Your task to perform on an android device: install app "Adobe Express: Graphic Design" Image 0: 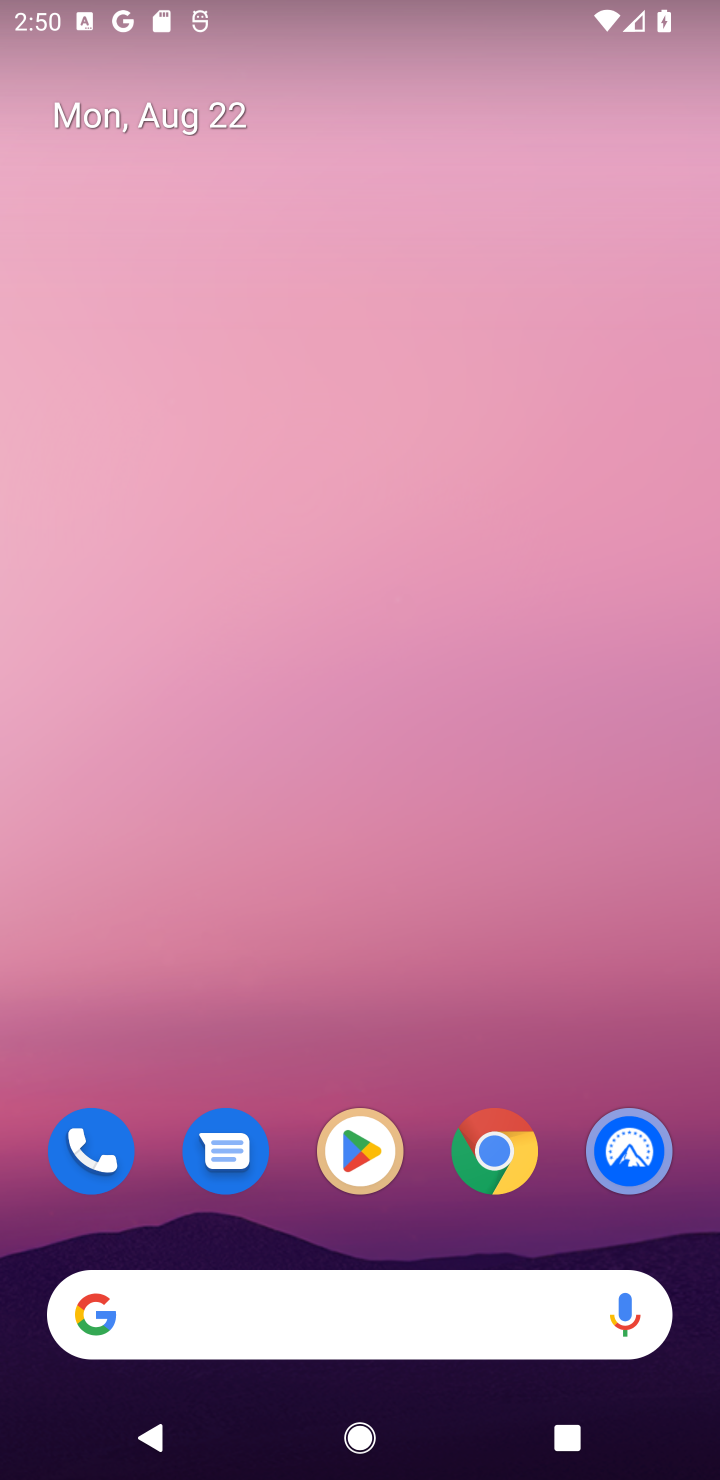
Step 0: click (372, 1134)
Your task to perform on an android device: install app "Adobe Express: Graphic Design" Image 1: 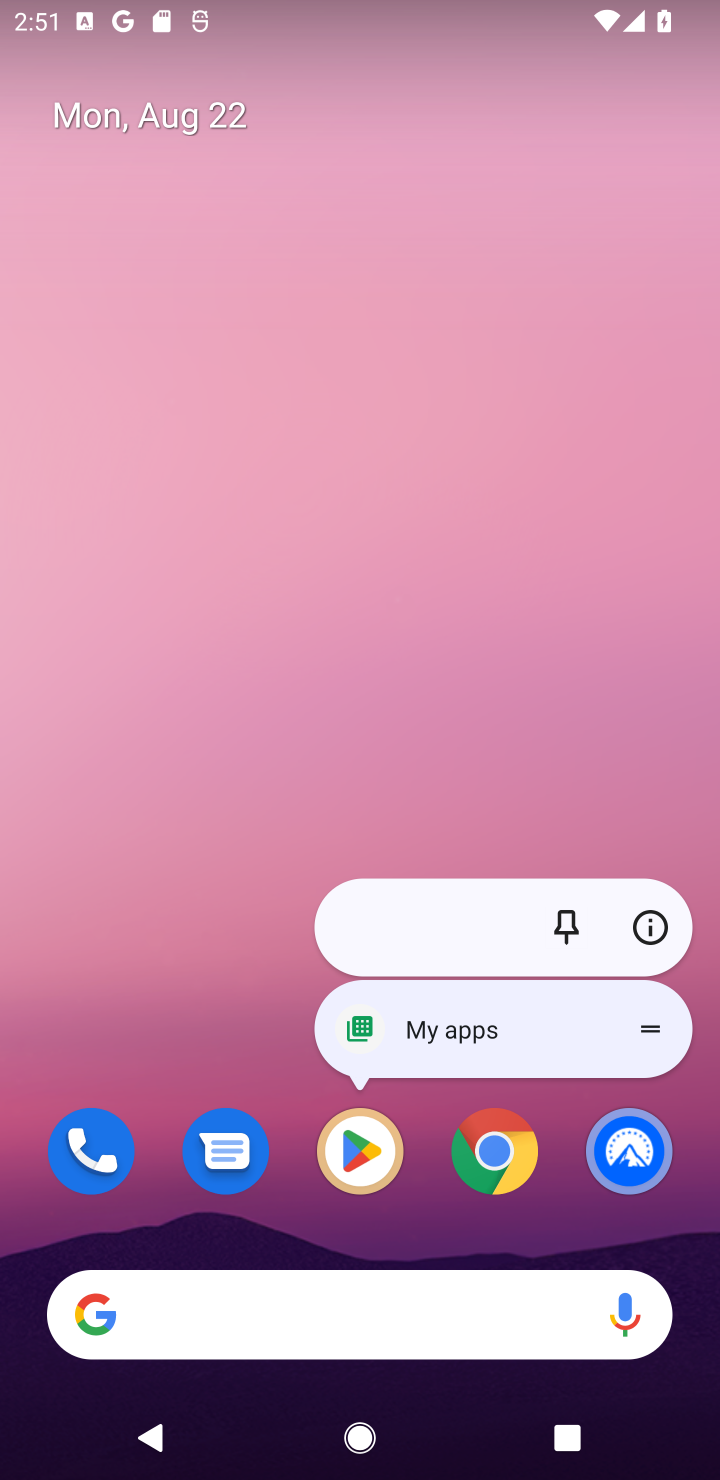
Step 1: click (354, 1141)
Your task to perform on an android device: install app "Adobe Express: Graphic Design" Image 2: 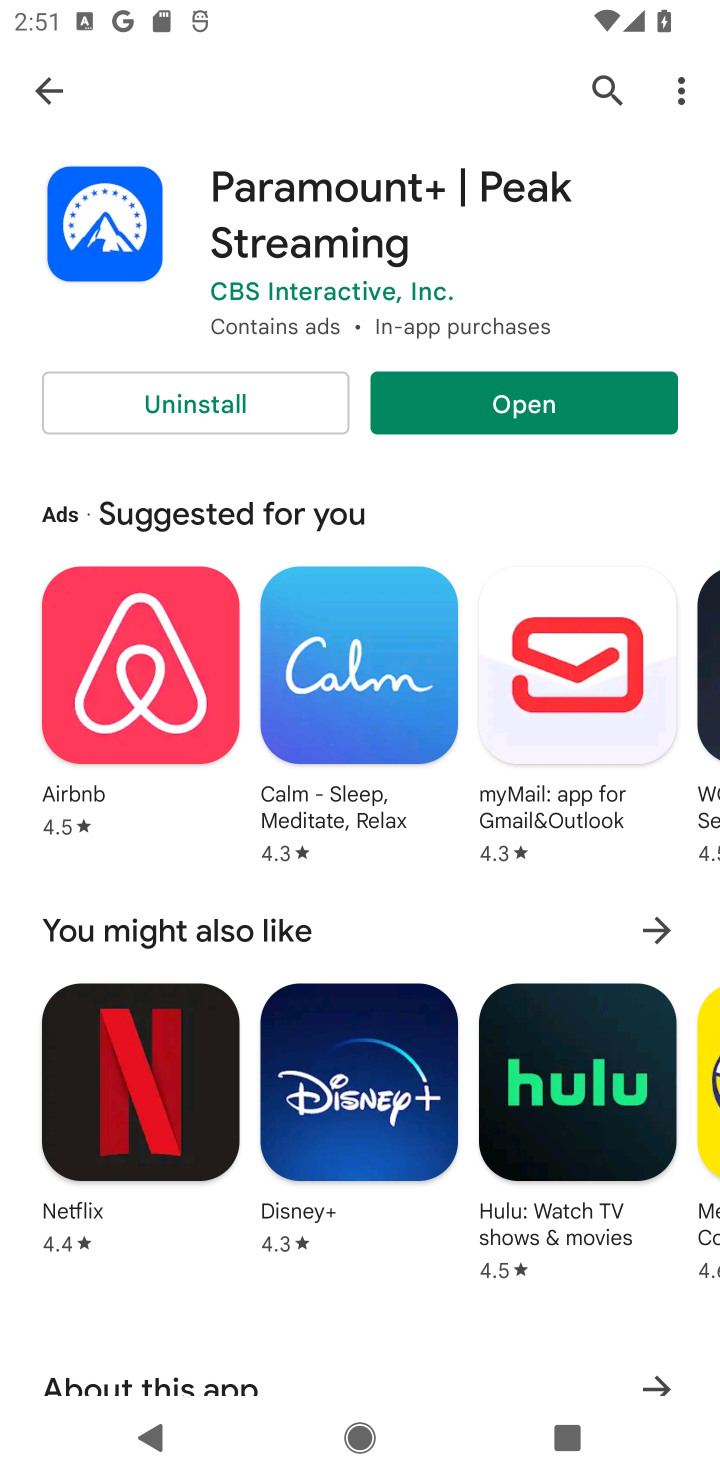
Step 2: click (599, 88)
Your task to perform on an android device: install app "Adobe Express: Graphic Design" Image 3: 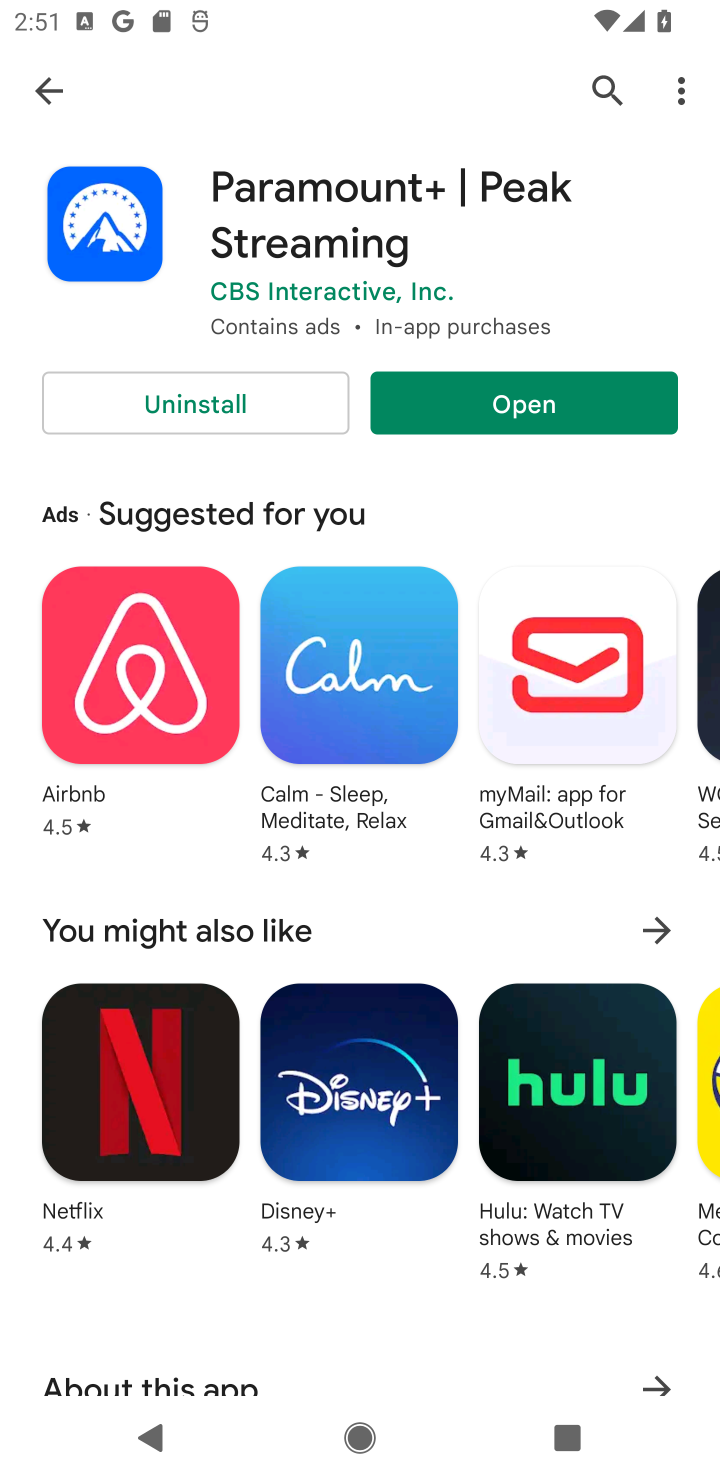
Step 3: click (602, 85)
Your task to perform on an android device: install app "Adobe Express: Graphic Design" Image 4: 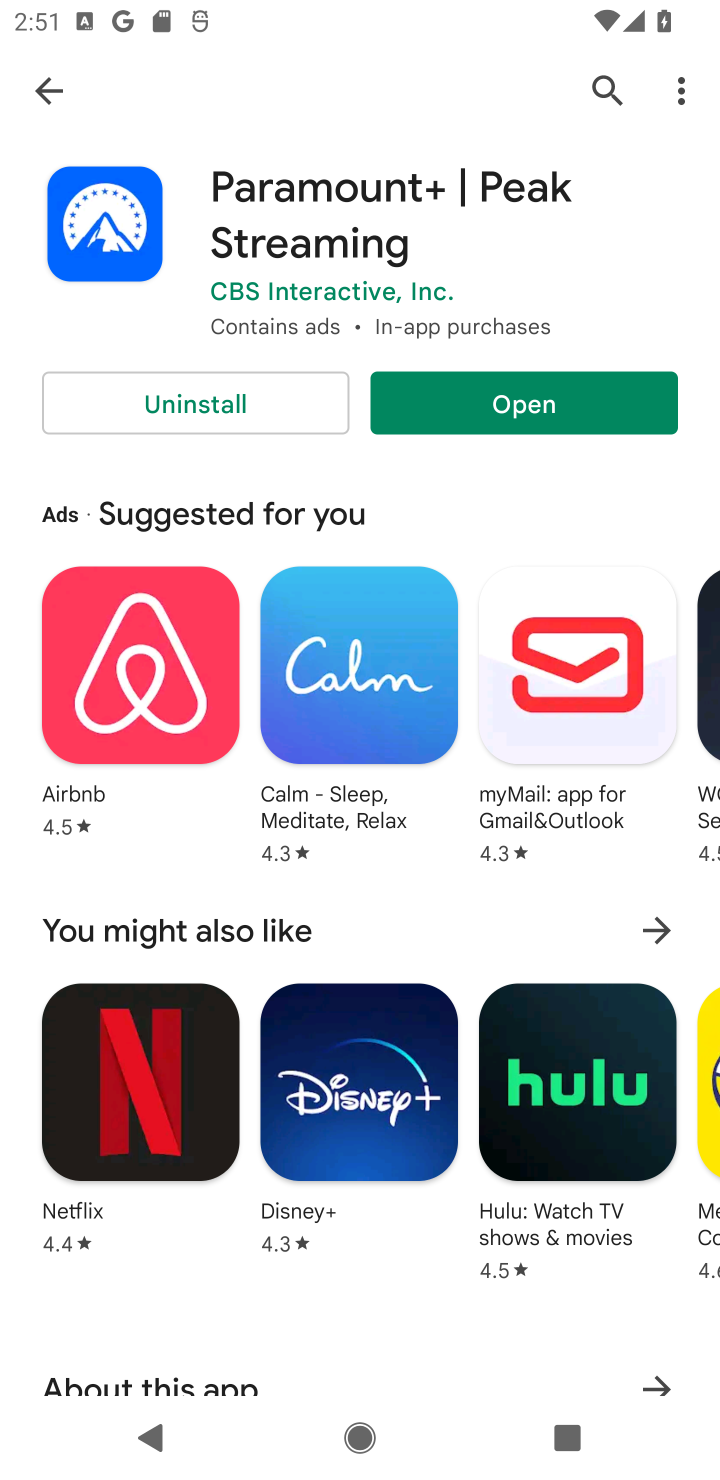
Step 4: click (602, 88)
Your task to perform on an android device: install app "Adobe Express: Graphic Design" Image 5: 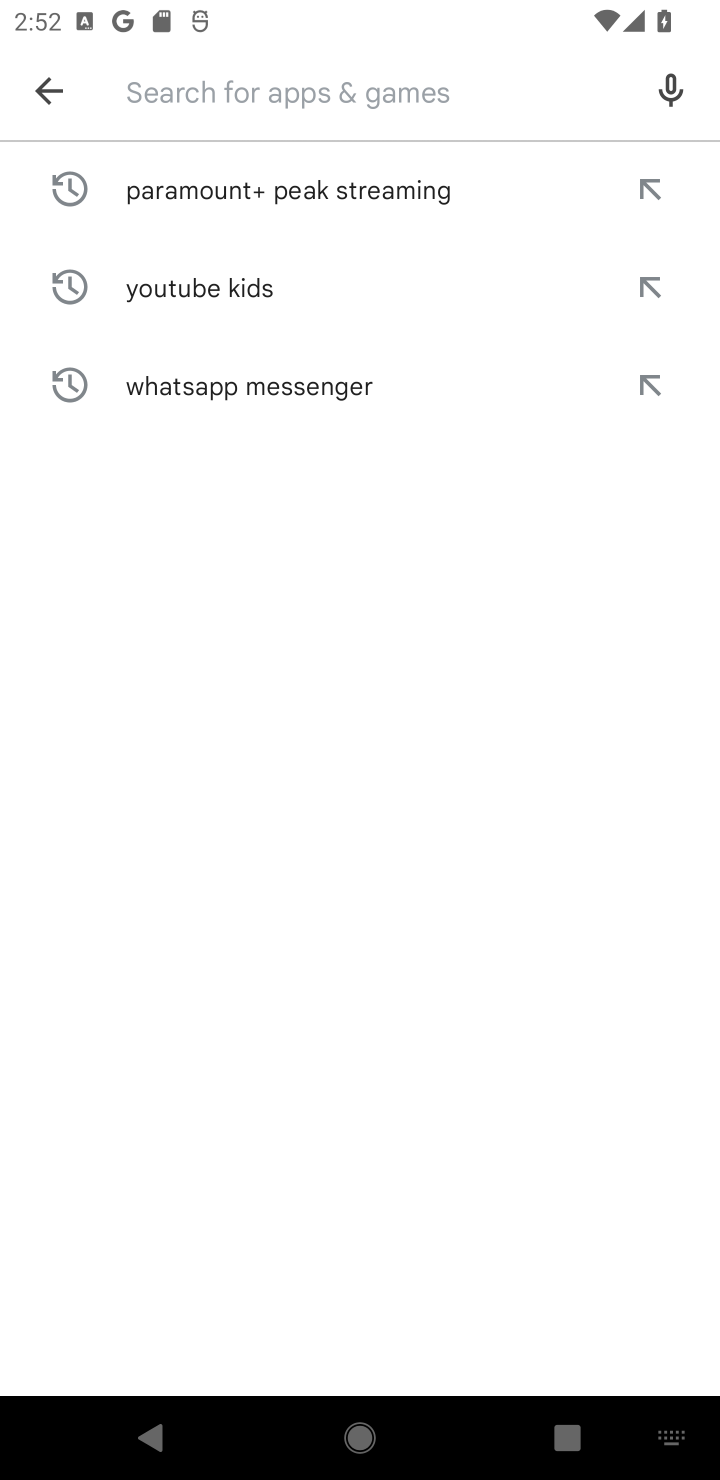
Step 5: type "Adobe Express: Graphic Design"
Your task to perform on an android device: install app "Adobe Express: Graphic Design" Image 6: 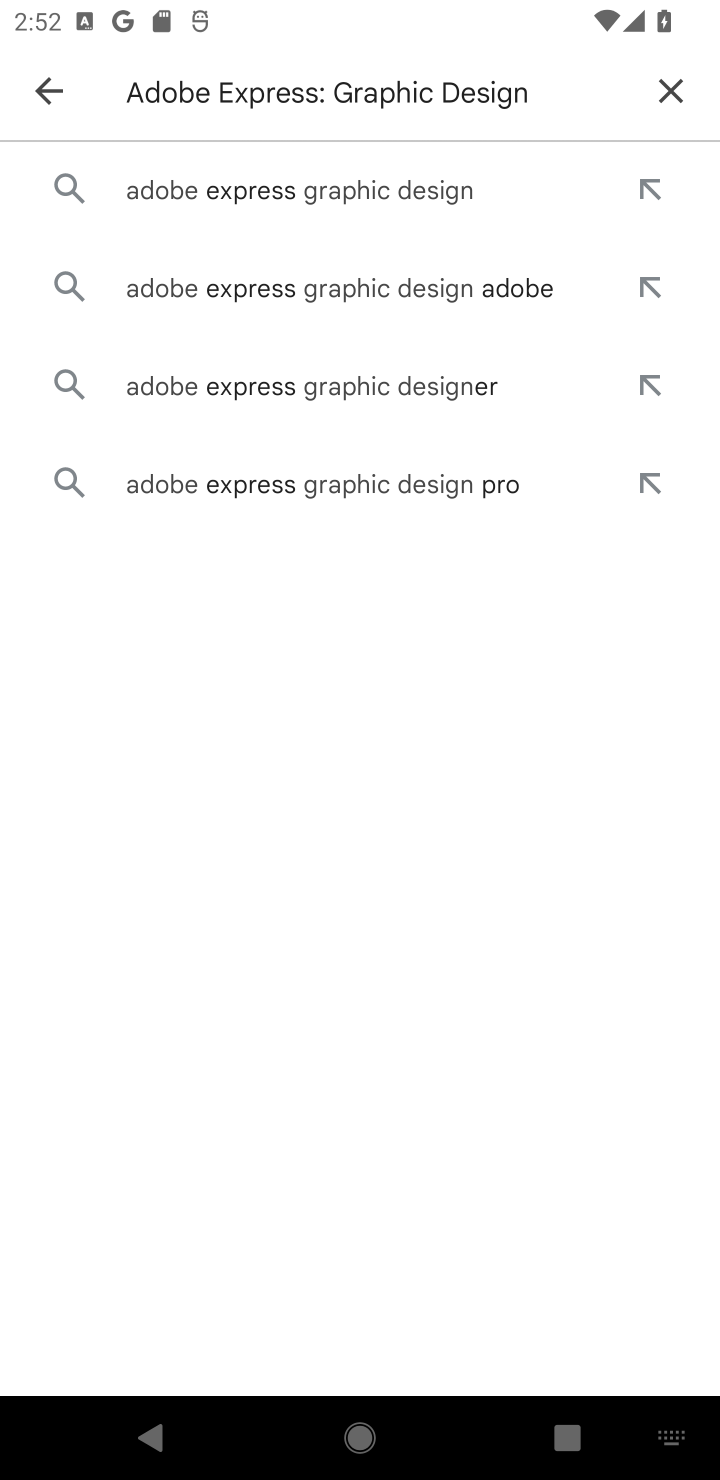
Step 6: click (292, 180)
Your task to perform on an android device: install app "Adobe Express: Graphic Design" Image 7: 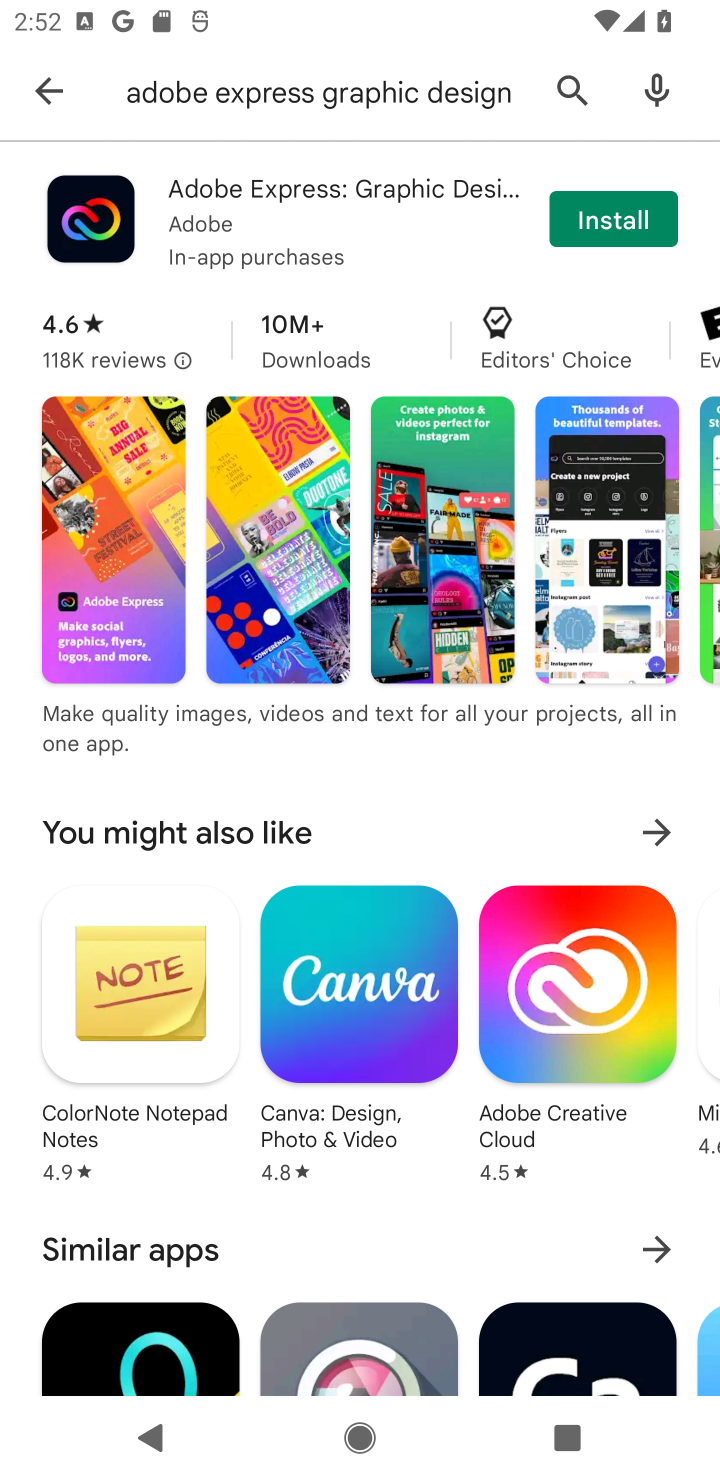
Step 7: click (605, 227)
Your task to perform on an android device: install app "Adobe Express: Graphic Design" Image 8: 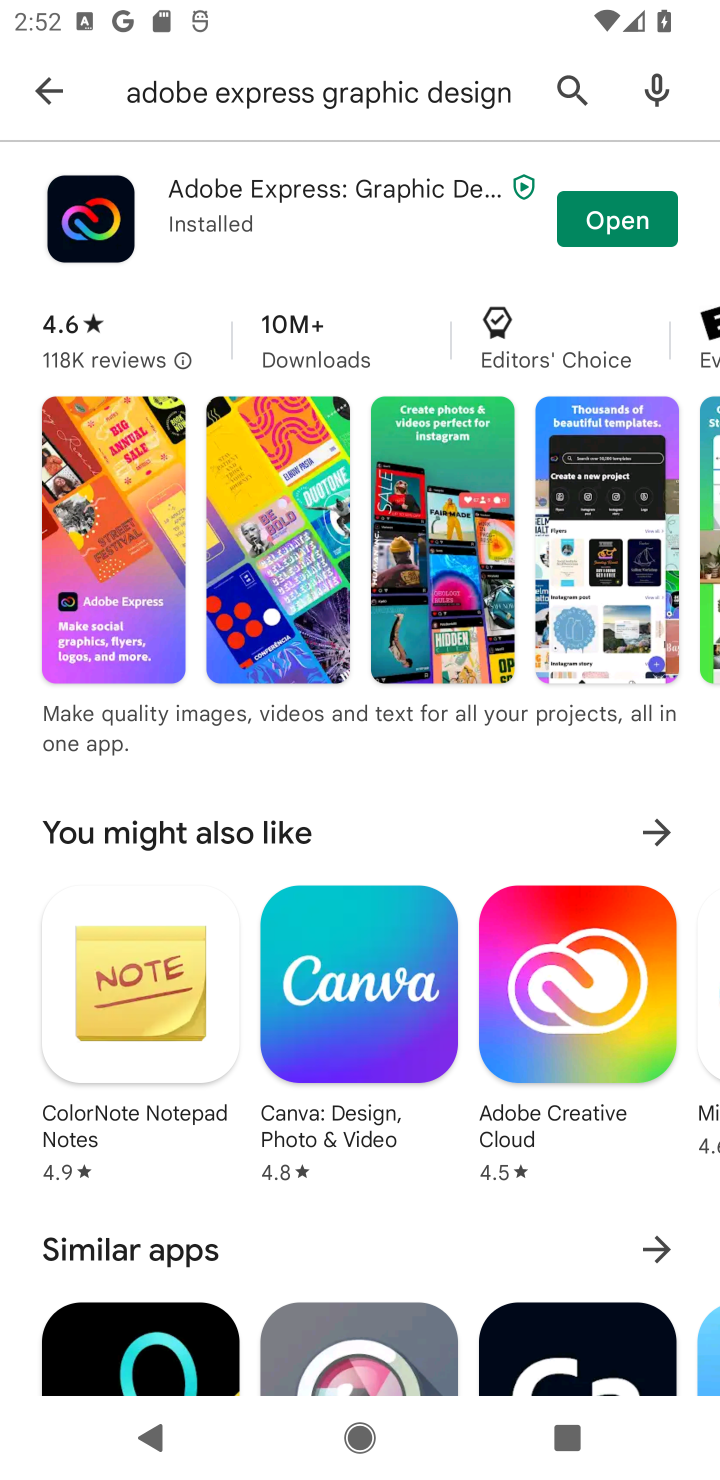
Step 8: task complete